Your task to perform on an android device: turn on notifications settings in the gmail app Image 0: 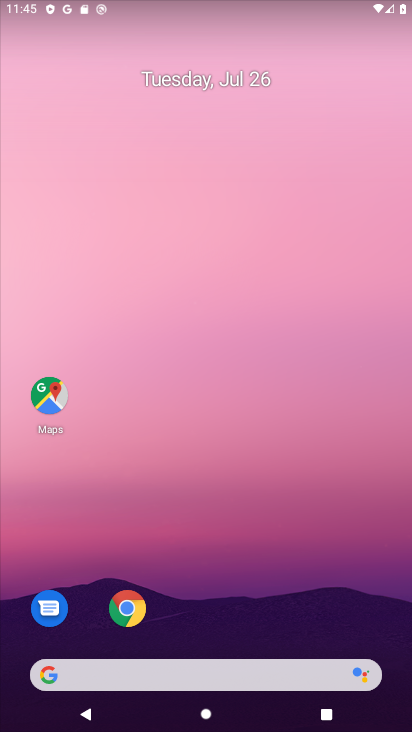
Step 0: drag from (207, 681) to (270, 112)
Your task to perform on an android device: turn on notifications settings in the gmail app Image 1: 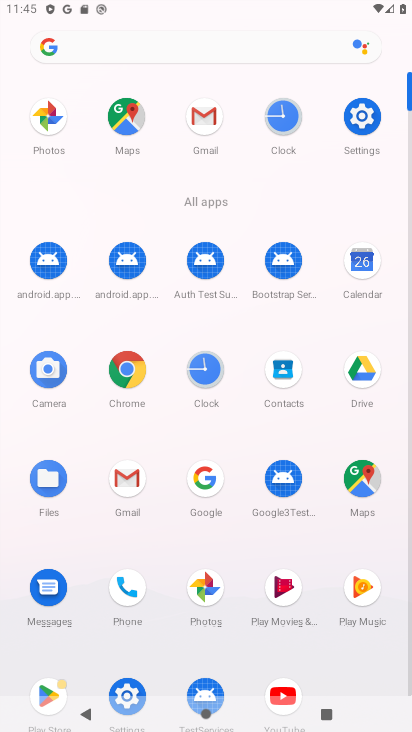
Step 1: click (204, 116)
Your task to perform on an android device: turn on notifications settings in the gmail app Image 2: 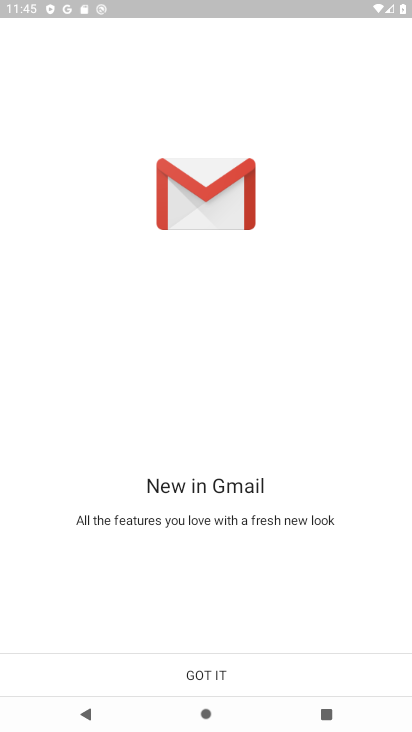
Step 2: click (212, 673)
Your task to perform on an android device: turn on notifications settings in the gmail app Image 3: 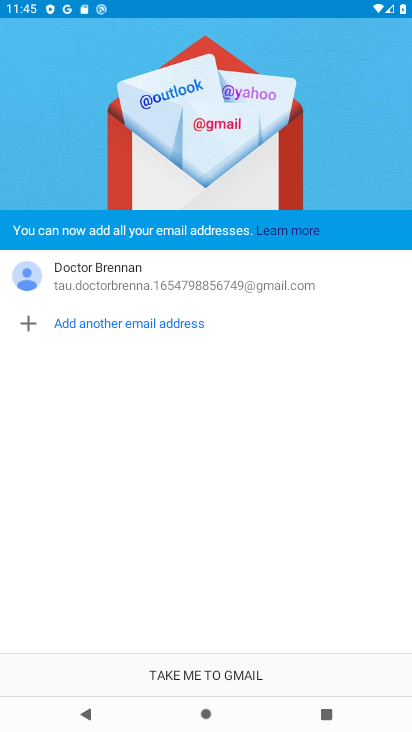
Step 3: click (212, 673)
Your task to perform on an android device: turn on notifications settings in the gmail app Image 4: 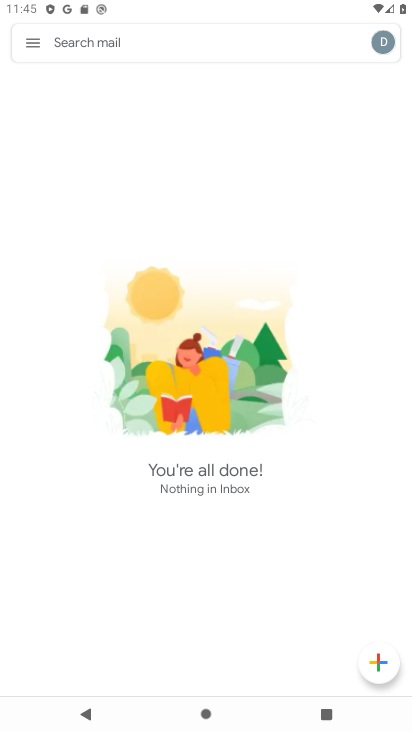
Step 4: click (33, 42)
Your task to perform on an android device: turn on notifications settings in the gmail app Image 5: 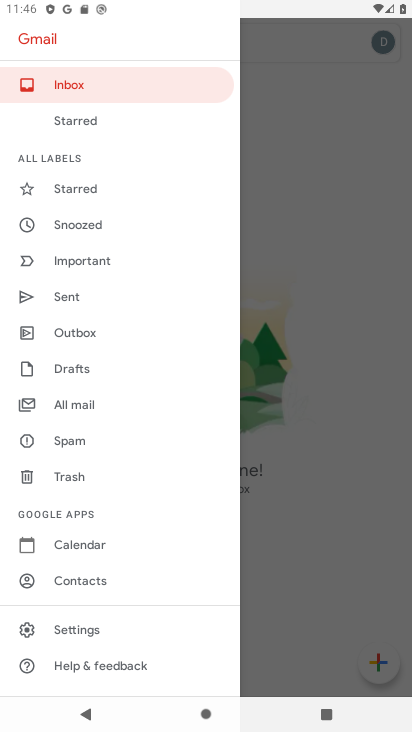
Step 5: click (74, 630)
Your task to perform on an android device: turn on notifications settings in the gmail app Image 6: 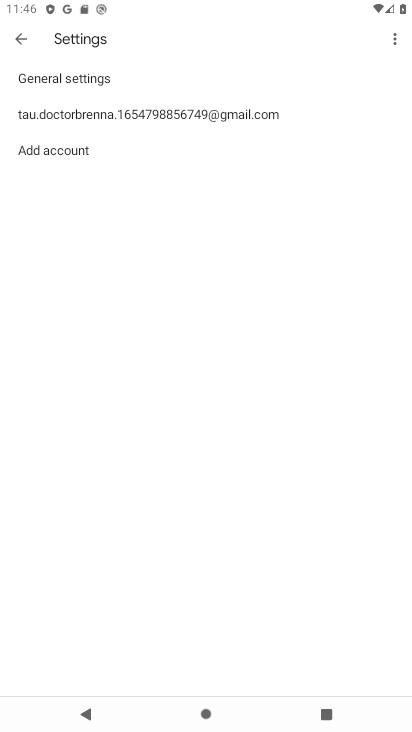
Step 6: click (141, 110)
Your task to perform on an android device: turn on notifications settings in the gmail app Image 7: 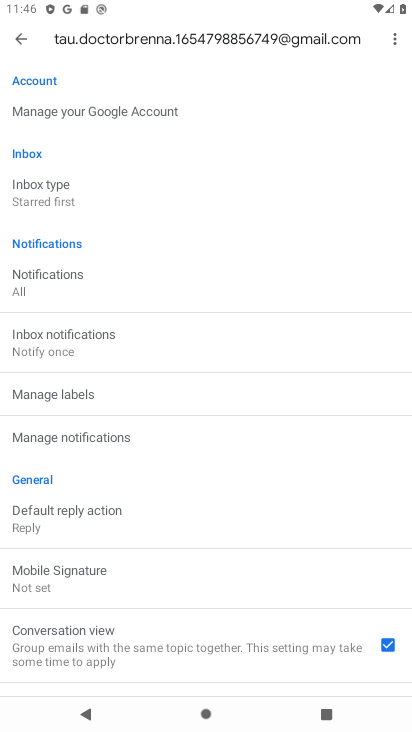
Step 7: drag from (116, 479) to (162, 275)
Your task to perform on an android device: turn on notifications settings in the gmail app Image 8: 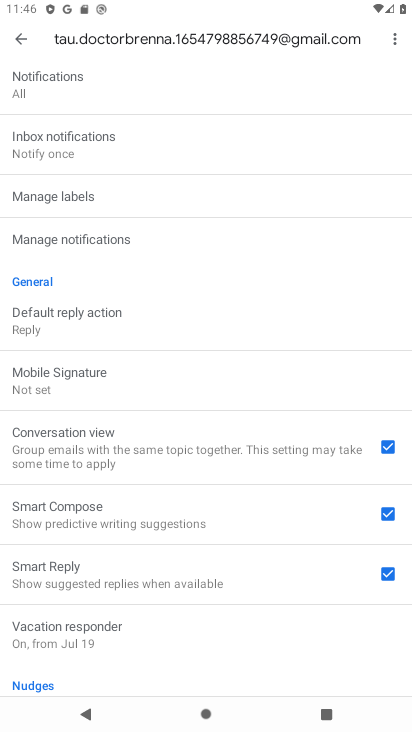
Step 8: drag from (109, 604) to (188, 372)
Your task to perform on an android device: turn on notifications settings in the gmail app Image 9: 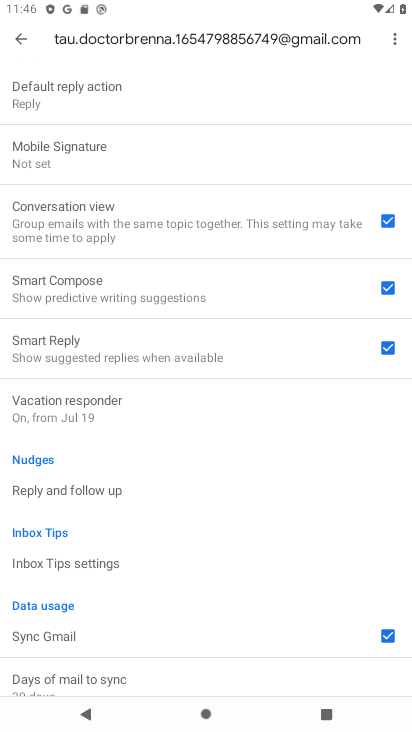
Step 9: drag from (119, 610) to (195, 475)
Your task to perform on an android device: turn on notifications settings in the gmail app Image 10: 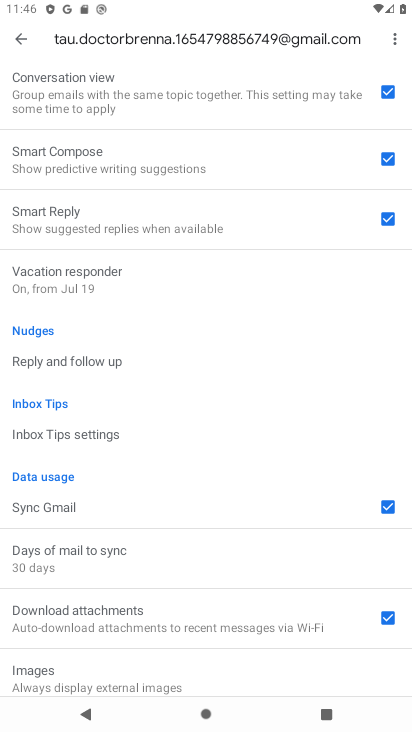
Step 10: drag from (154, 575) to (250, 414)
Your task to perform on an android device: turn on notifications settings in the gmail app Image 11: 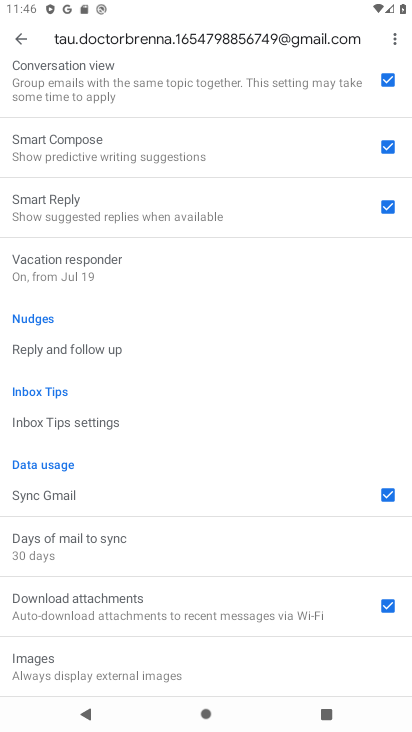
Step 11: drag from (205, 305) to (224, 576)
Your task to perform on an android device: turn on notifications settings in the gmail app Image 12: 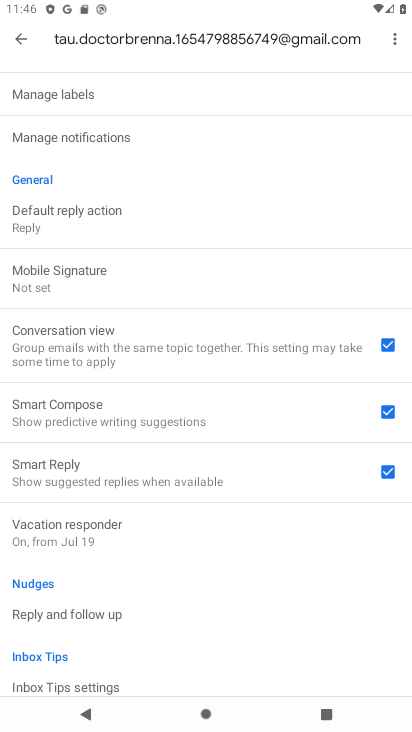
Step 12: drag from (95, 168) to (113, 312)
Your task to perform on an android device: turn on notifications settings in the gmail app Image 13: 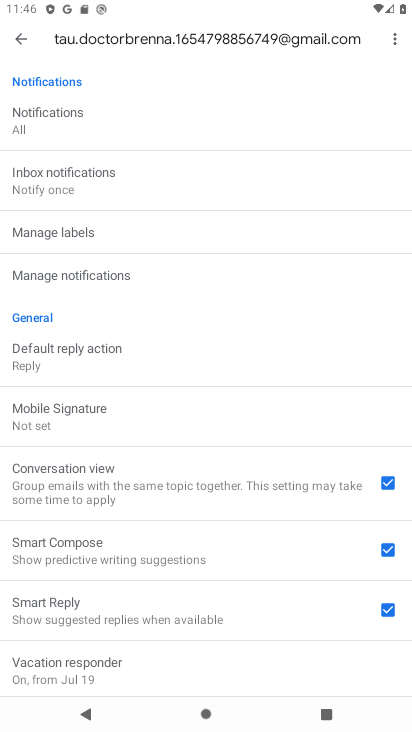
Step 13: click (112, 280)
Your task to perform on an android device: turn on notifications settings in the gmail app Image 14: 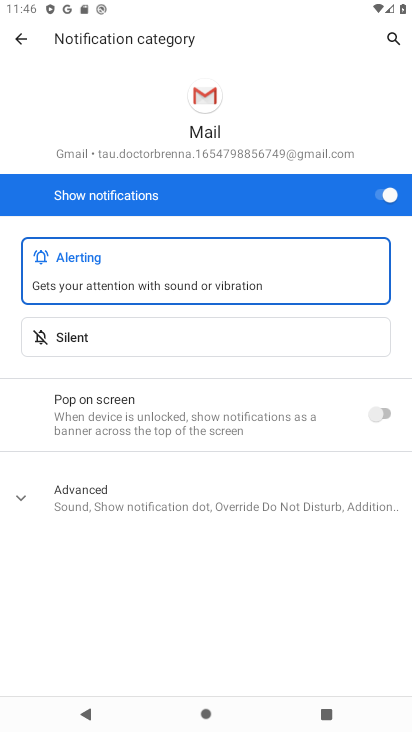
Step 14: task complete